Your task to perform on an android device: install app "Mercado Libre" Image 0: 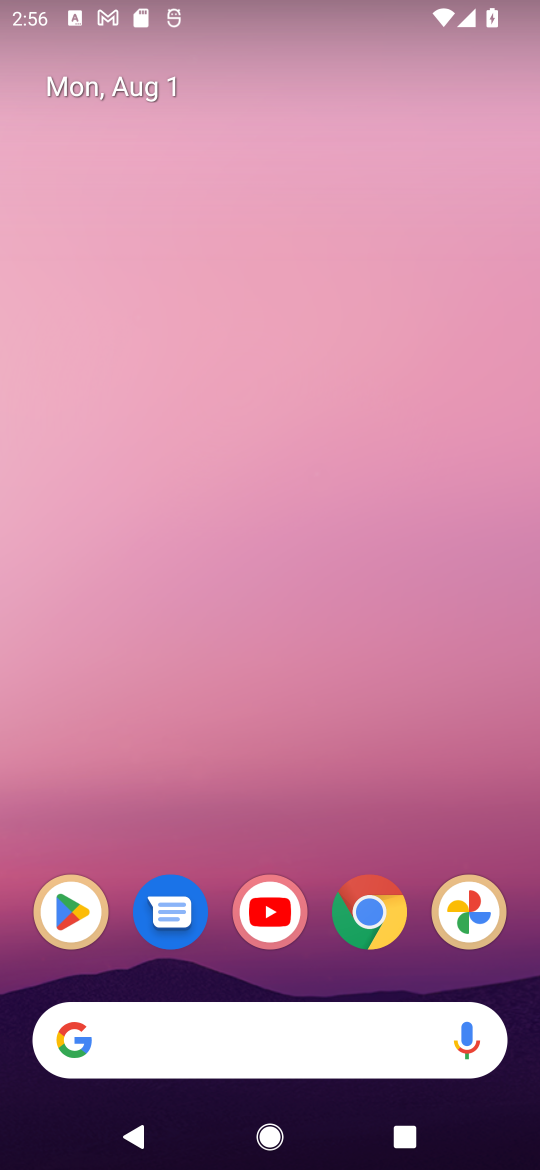
Step 0: click (78, 917)
Your task to perform on an android device: install app "Mercado Libre" Image 1: 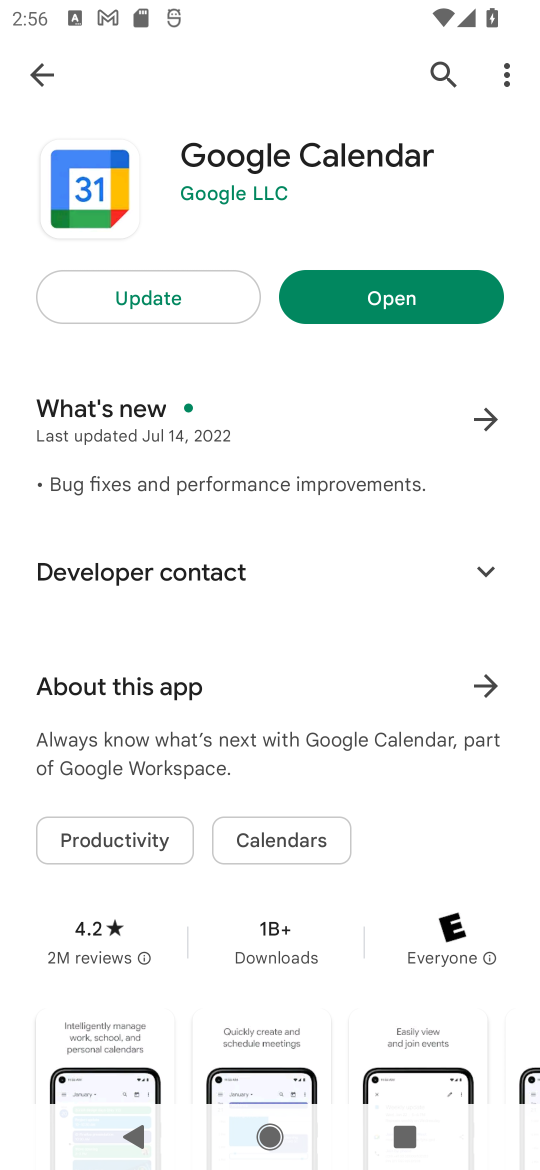
Step 1: click (429, 79)
Your task to perform on an android device: install app "Mercado Libre" Image 2: 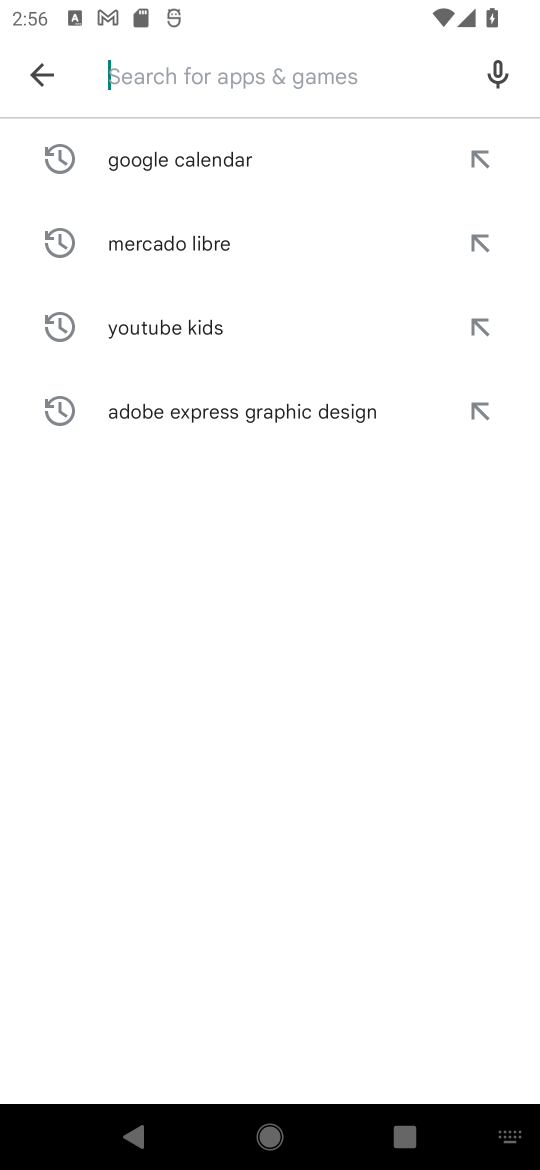
Step 2: click (341, 79)
Your task to perform on an android device: install app "Mercado Libre" Image 3: 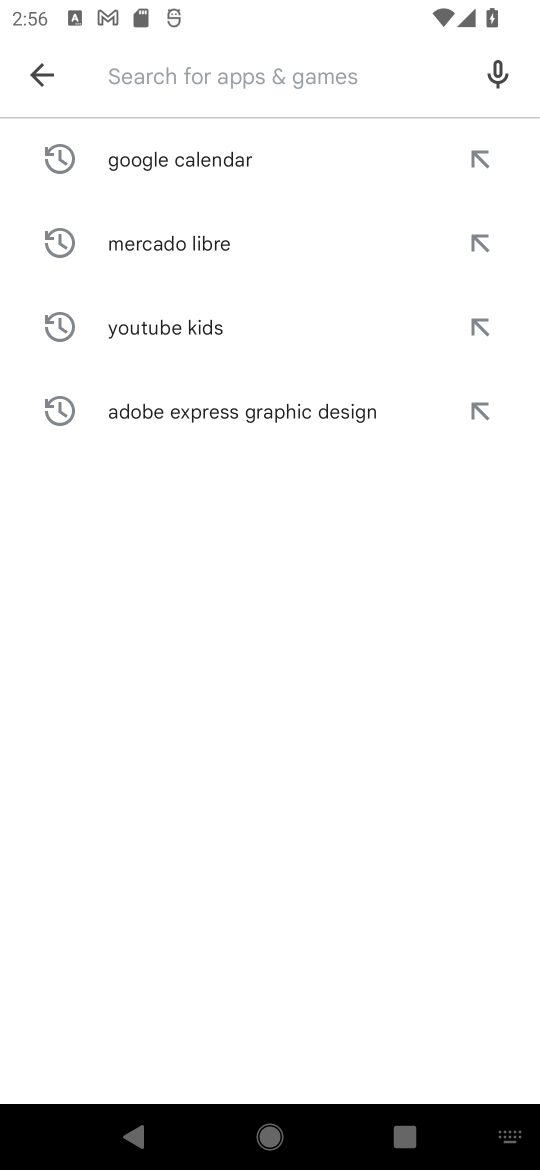
Step 3: type "Mercado Libre"
Your task to perform on an android device: install app "Mercado Libre" Image 4: 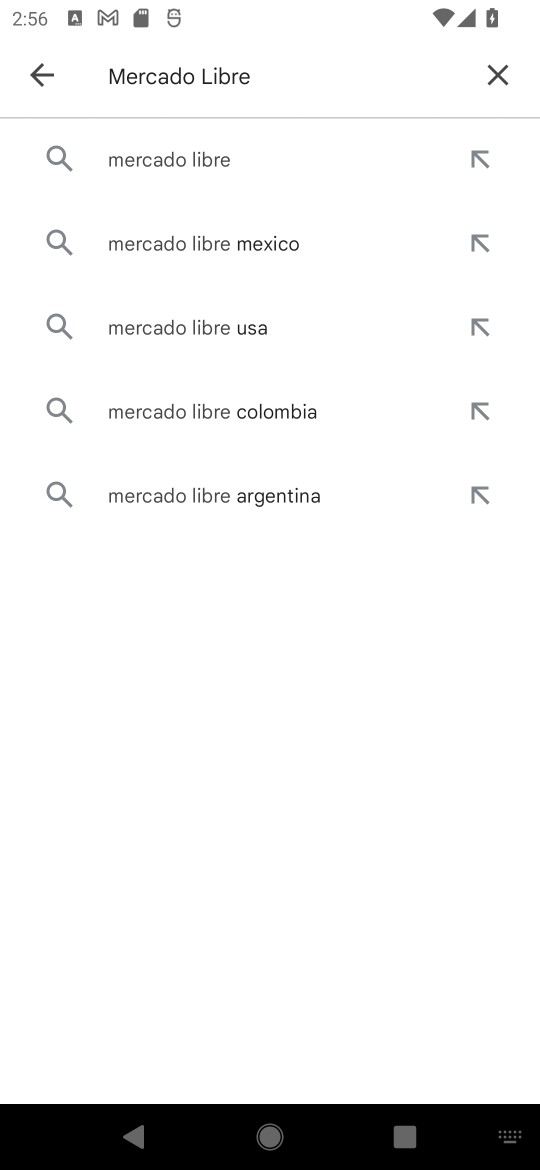
Step 4: click (190, 157)
Your task to perform on an android device: install app "Mercado Libre" Image 5: 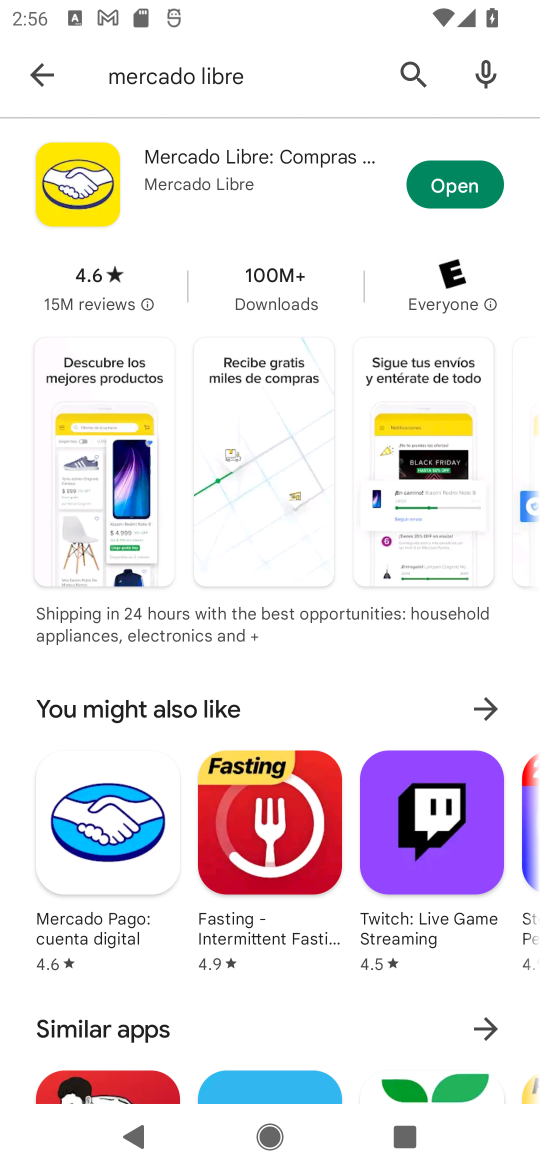
Step 5: task complete